Your task to perform on an android device: snooze an email in the gmail app Image 0: 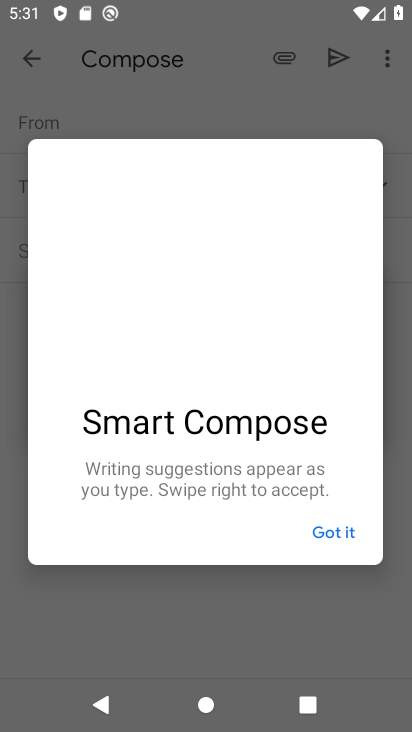
Step 0: press home button
Your task to perform on an android device: snooze an email in the gmail app Image 1: 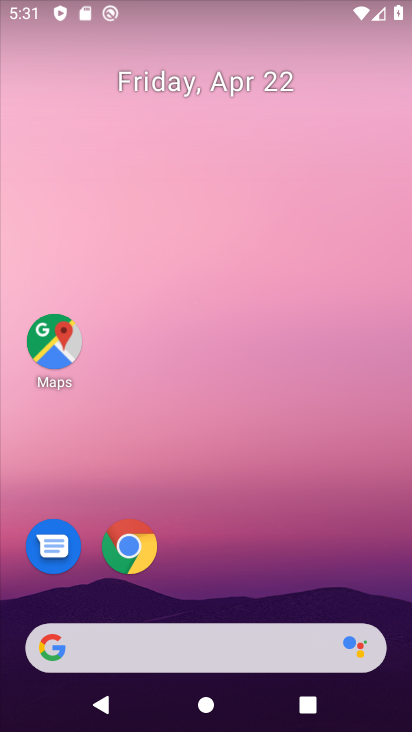
Step 1: click (128, 560)
Your task to perform on an android device: snooze an email in the gmail app Image 2: 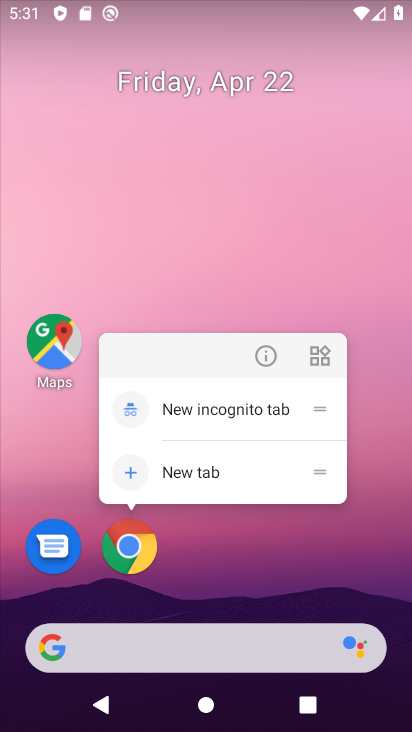
Step 2: click (136, 575)
Your task to perform on an android device: snooze an email in the gmail app Image 3: 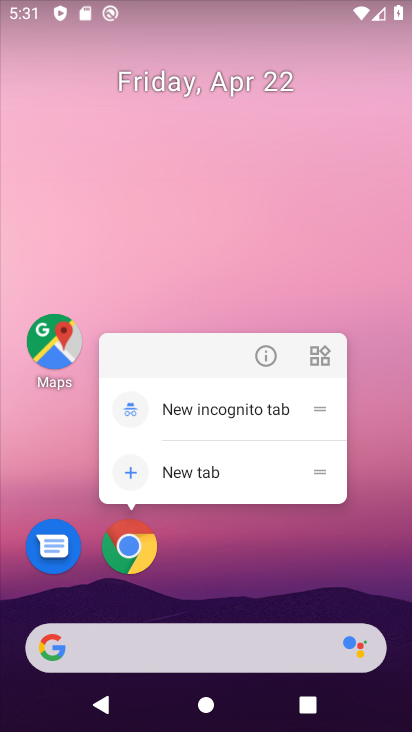
Step 3: click (140, 564)
Your task to perform on an android device: snooze an email in the gmail app Image 4: 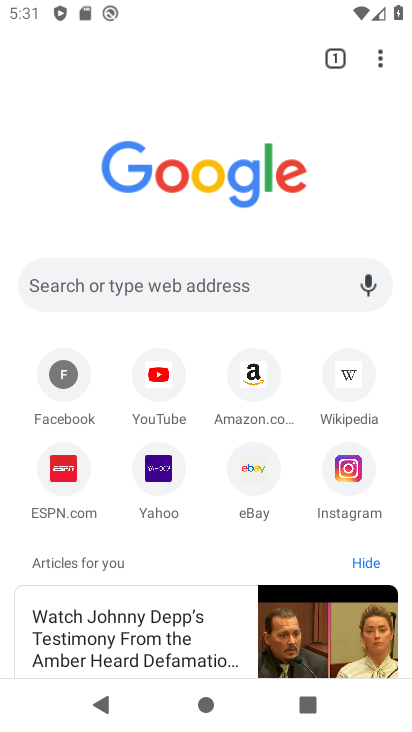
Step 4: click (381, 58)
Your task to perform on an android device: snooze an email in the gmail app Image 5: 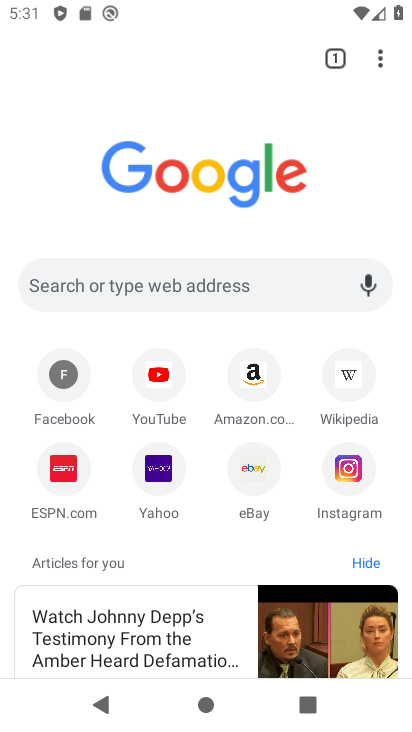
Step 5: click (381, 58)
Your task to perform on an android device: snooze an email in the gmail app Image 6: 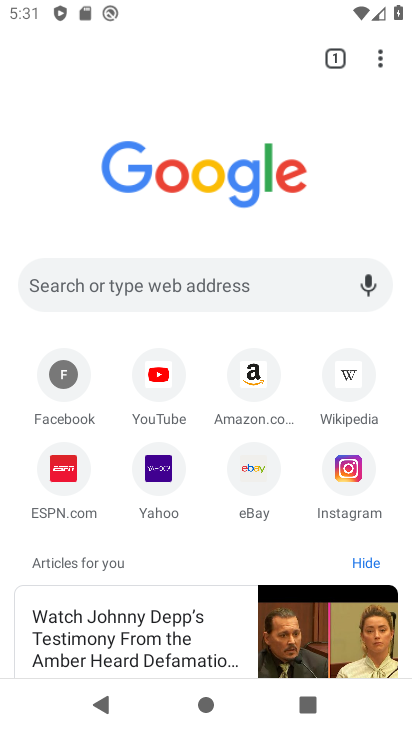
Step 6: click (381, 58)
Your task to perform on an android device: snooze an email in the gmail app Image 7: 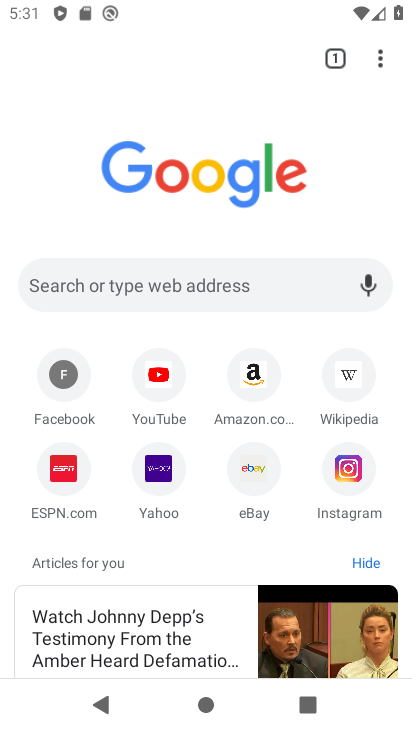
Step 7: click (375, 60)
Your task to perform on an android device: snooze an email in the gmail app Image 8: 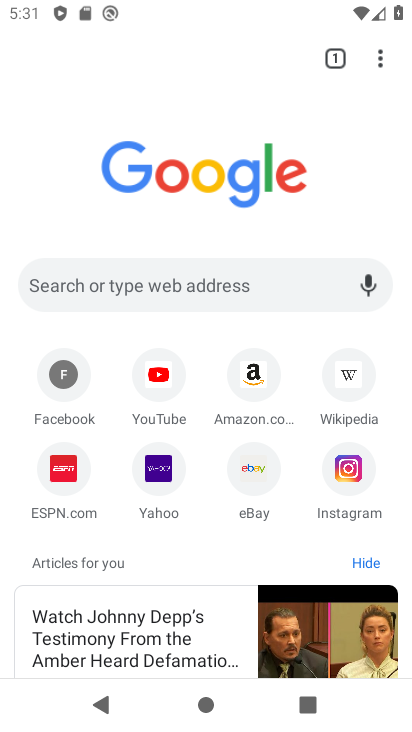
Step 8: click (377, 62)
Your task to perform on an android device: snooze an email in the gmail app Image 9: 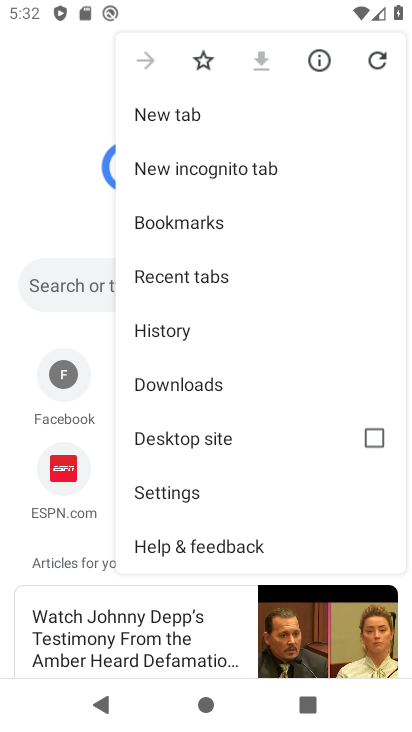
Step 9: click (164, 489)
Your task to perform on an android device: snooze an email in the gmail app Image 10: 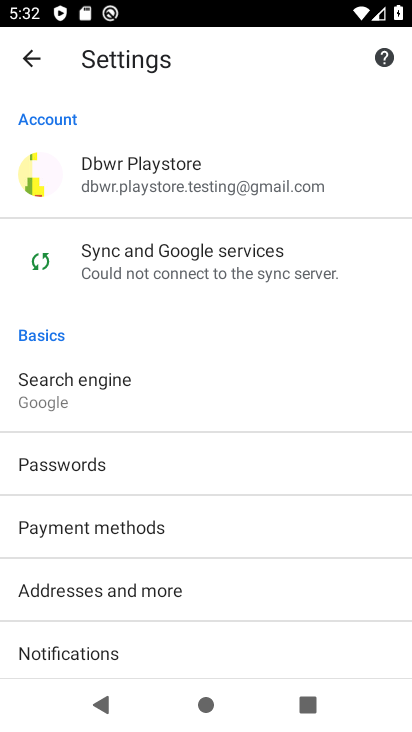
Step 10: drag from (215, 550) to (200, 266)
Your task to perform on an android device: snooze an email in the gmail app Image 11: 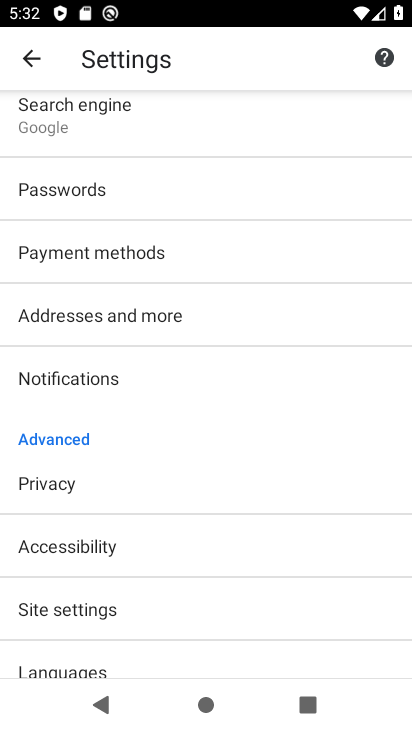
Step 11: drag from (150, 583) to (206, 311)
Your task to perform on an android device: snooze an email in the gmail app Image 12: 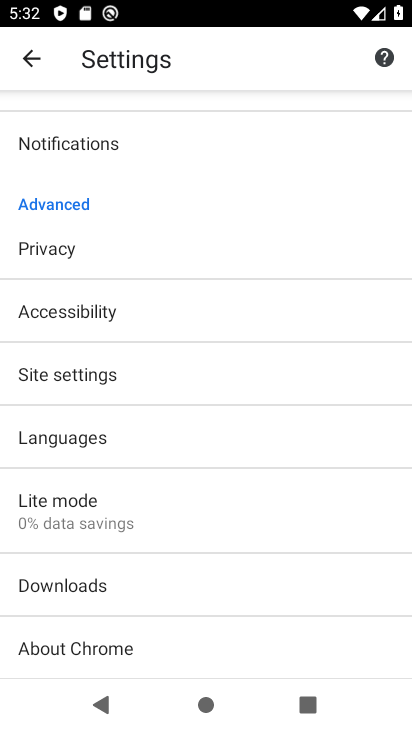
Step 12: click (88, 438)
Your task to perform on an android device: snooze an email in the gmail app Image 13: 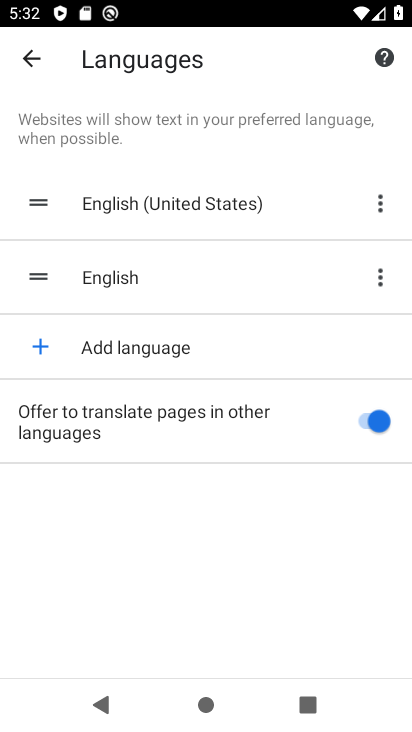
Step 13: click (364, 428)
Your task to perform on an android device: snooze an email in the gmail app Image 14: 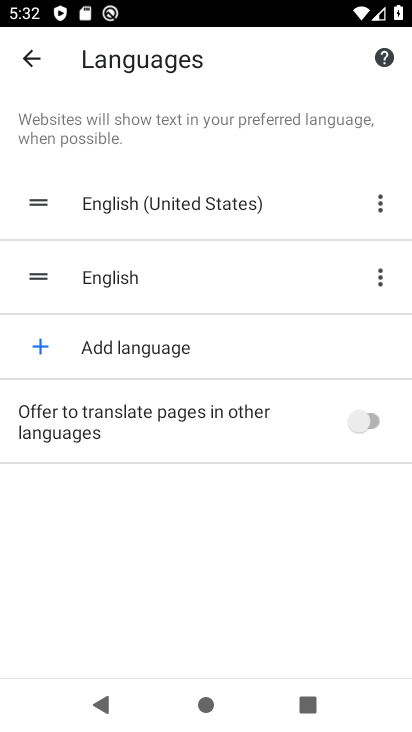
Step 14: task complete